Your task to perform on an android device: What's the weather going to be this weekend? Image 0: 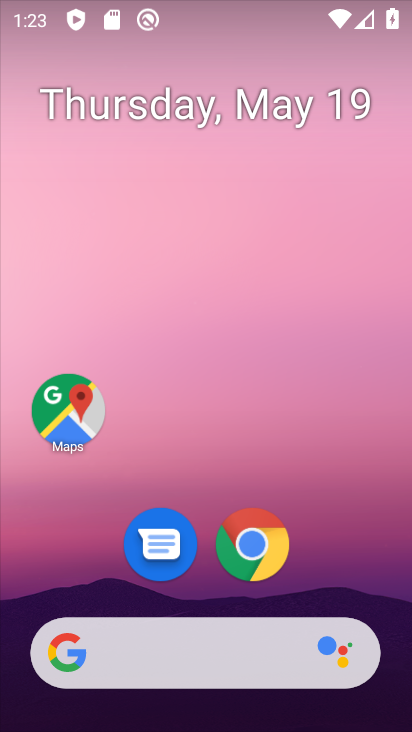
Step 0: drag from (199, 696) to (313, 142)
Your task to perform on an android device: What's the weather going to be this weekend? Image 1: 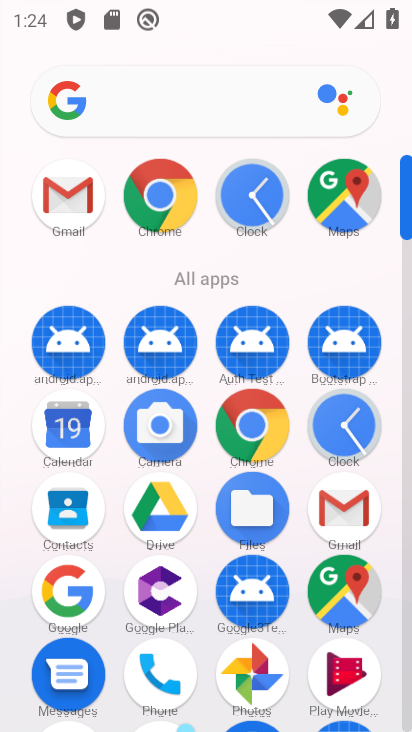
Step 1: click (177, 100)
Your task to perform on an android device: What's the weather going to be this weekend? Image 2: 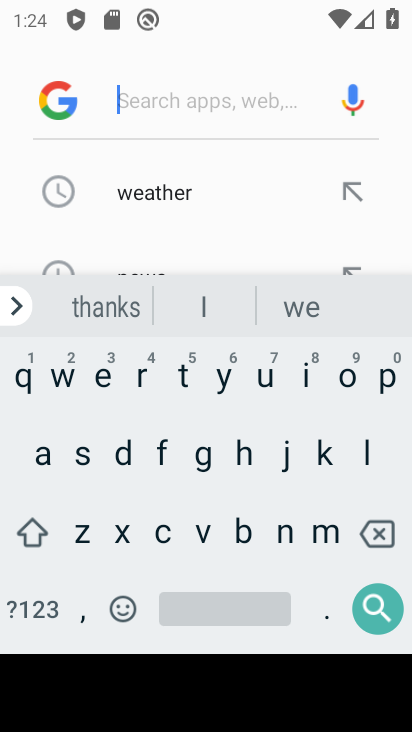
Step 2: click (158, 179)
Your task to perform on an android device: What's the weather going to be this weekend? Image 3: 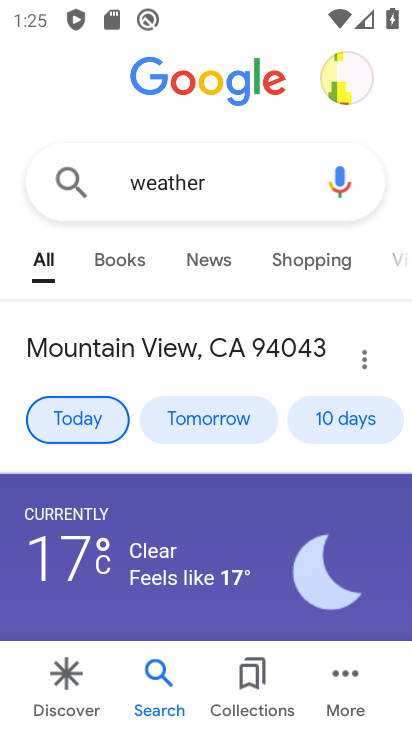
Step 3: click (329, 413)
Your task to perform on an android device: What's the weather going to be this weekend? Image 4: 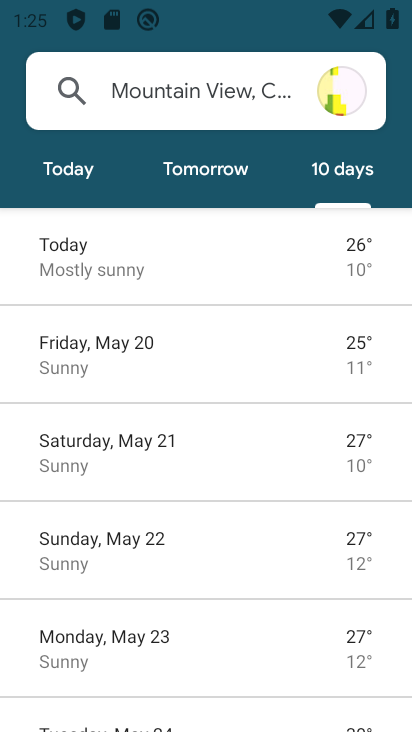
Step 4: task complete